Your task to perform on an android device: Empty the shopping cart on bestbuy.com. Image 0: 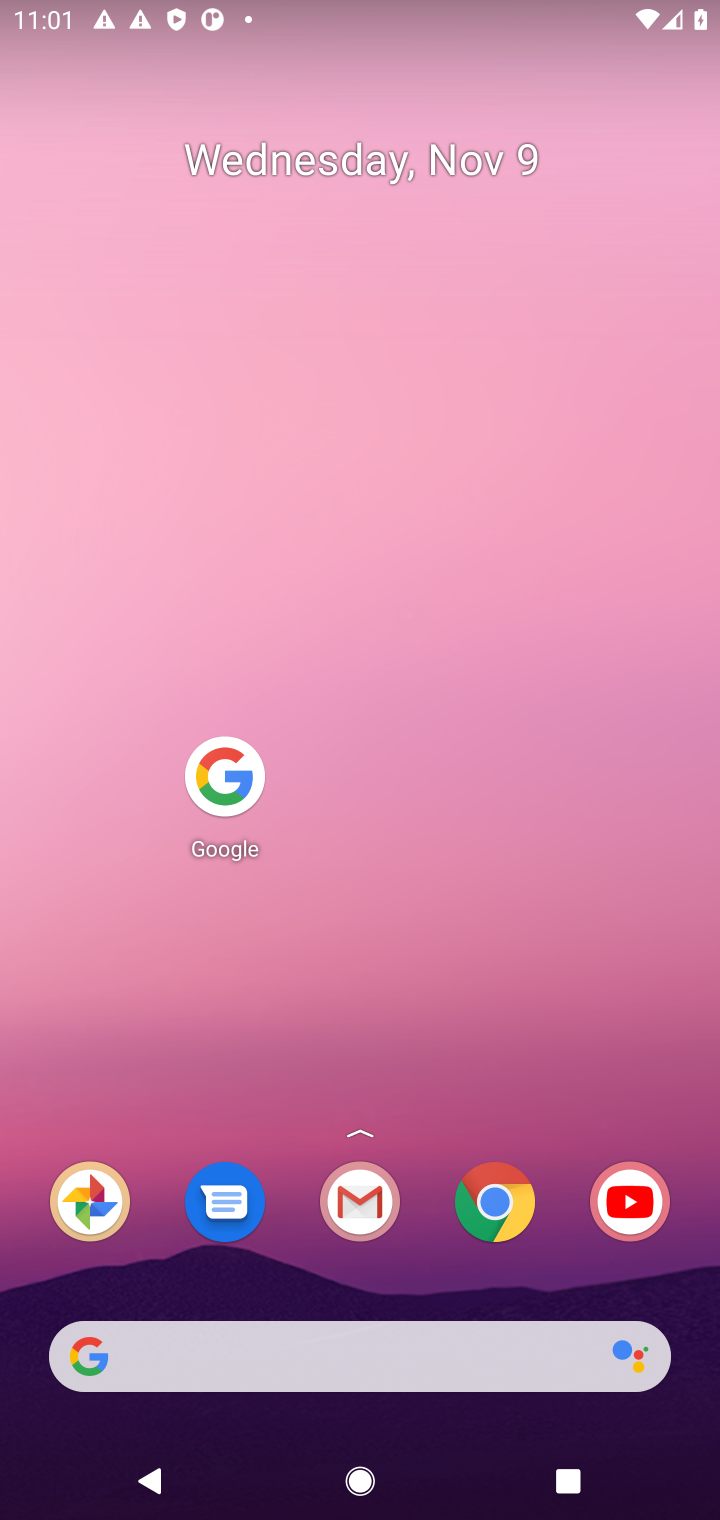
Step 0: click (231, 765)
Your task to perform on an android device: Empty the shopping cart on bestbuy.com. Image 1: 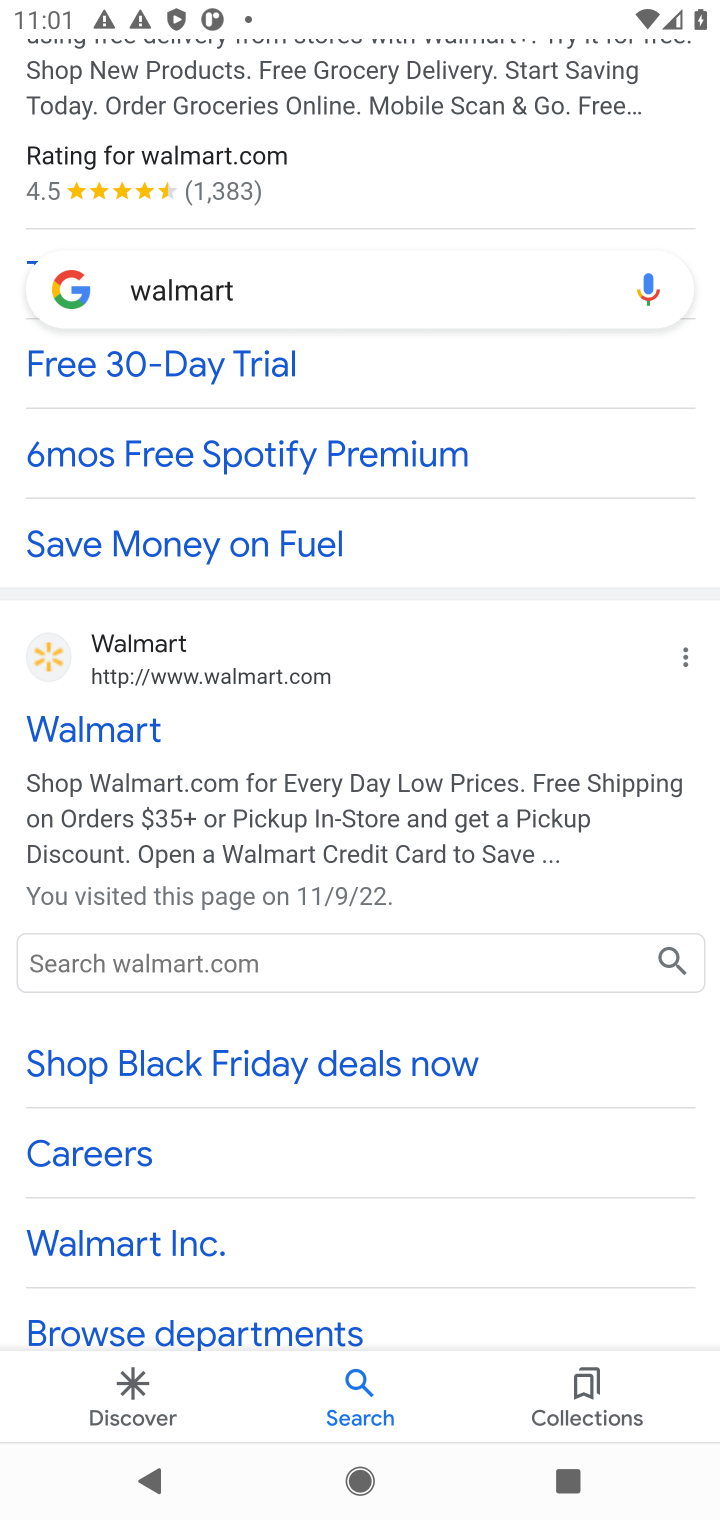
Step 1: drag from (440, 160) to (500, 1233)
Your task to perform on an android device: Empty the shopping cart on bestbuy.com. Image 2: 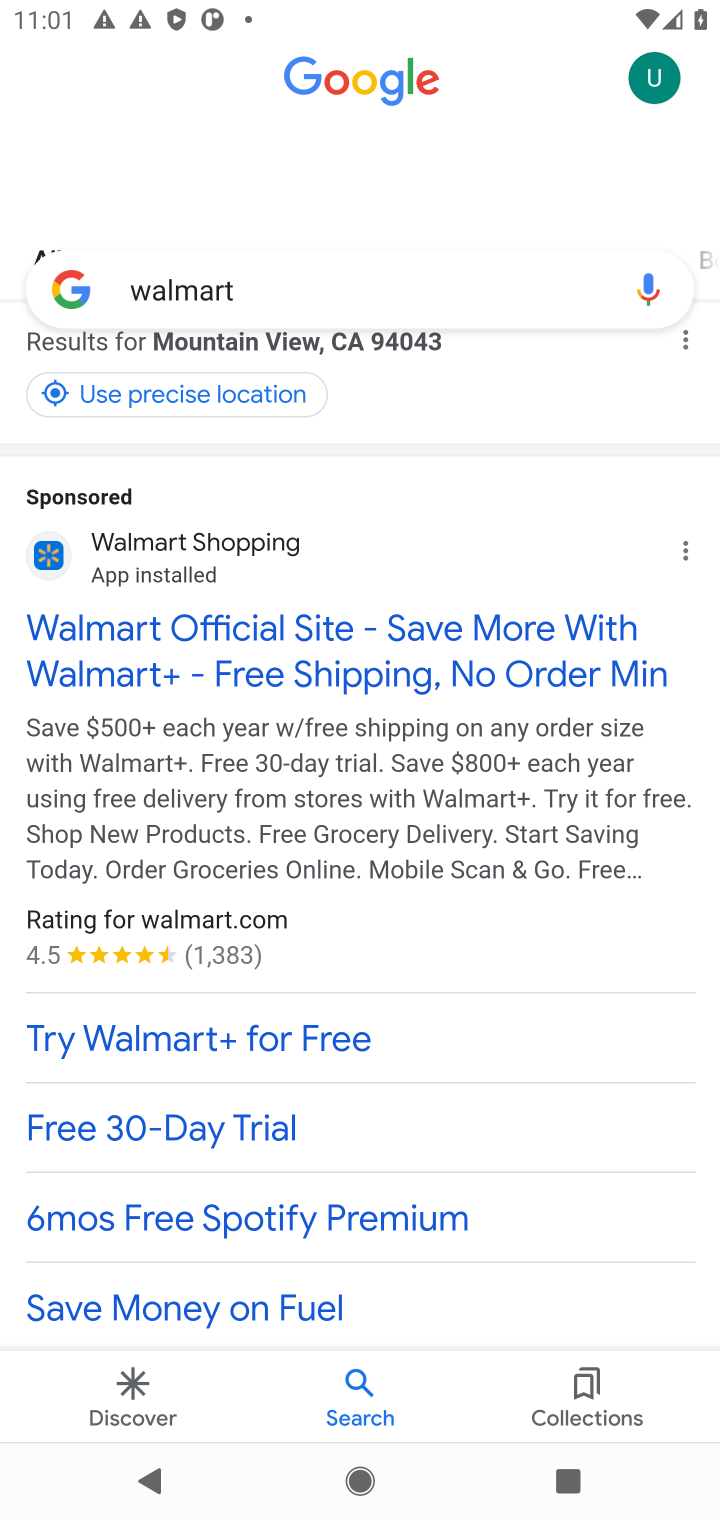
Step 2: click (336, 290)
Your task to perform on an android device: Empty the shopping cart on bestbuy.com. Image 3: 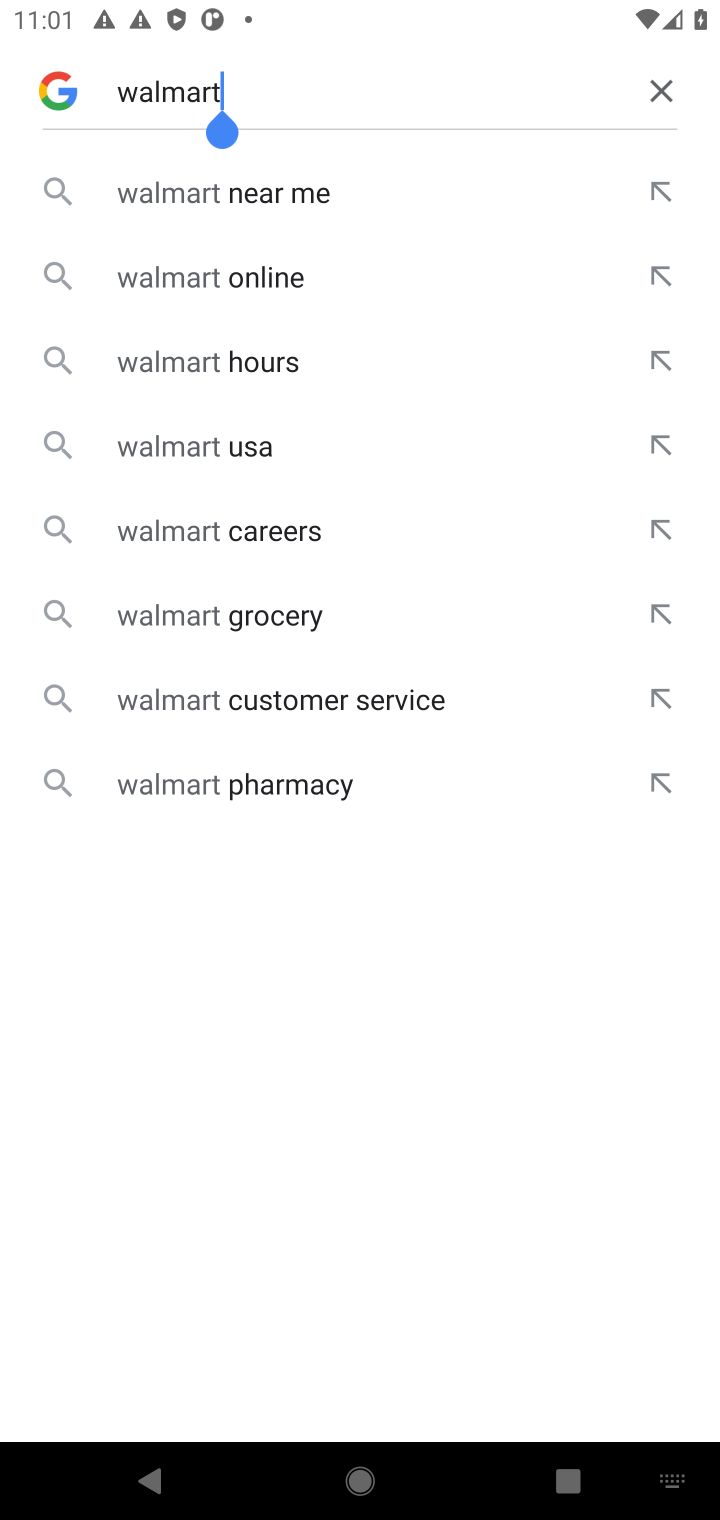
Step 3: click (665, 83)
Your task to perform on an android device: Empty the shopping cart on bestbuy.com. Image 4: 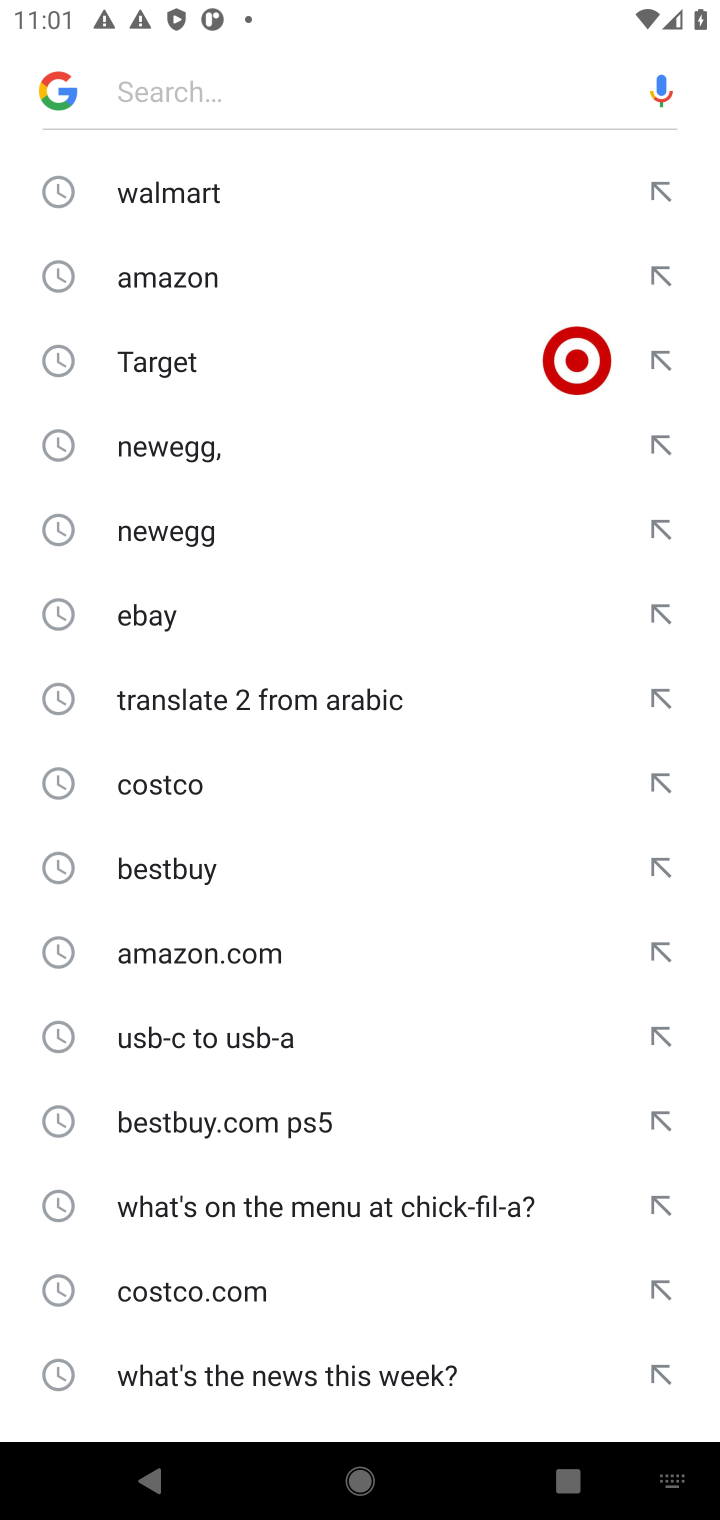
Step 4: click (161, 869)
Your task to perform on an android device: Empty the shopping cart on bestbuy.com. Image 5: 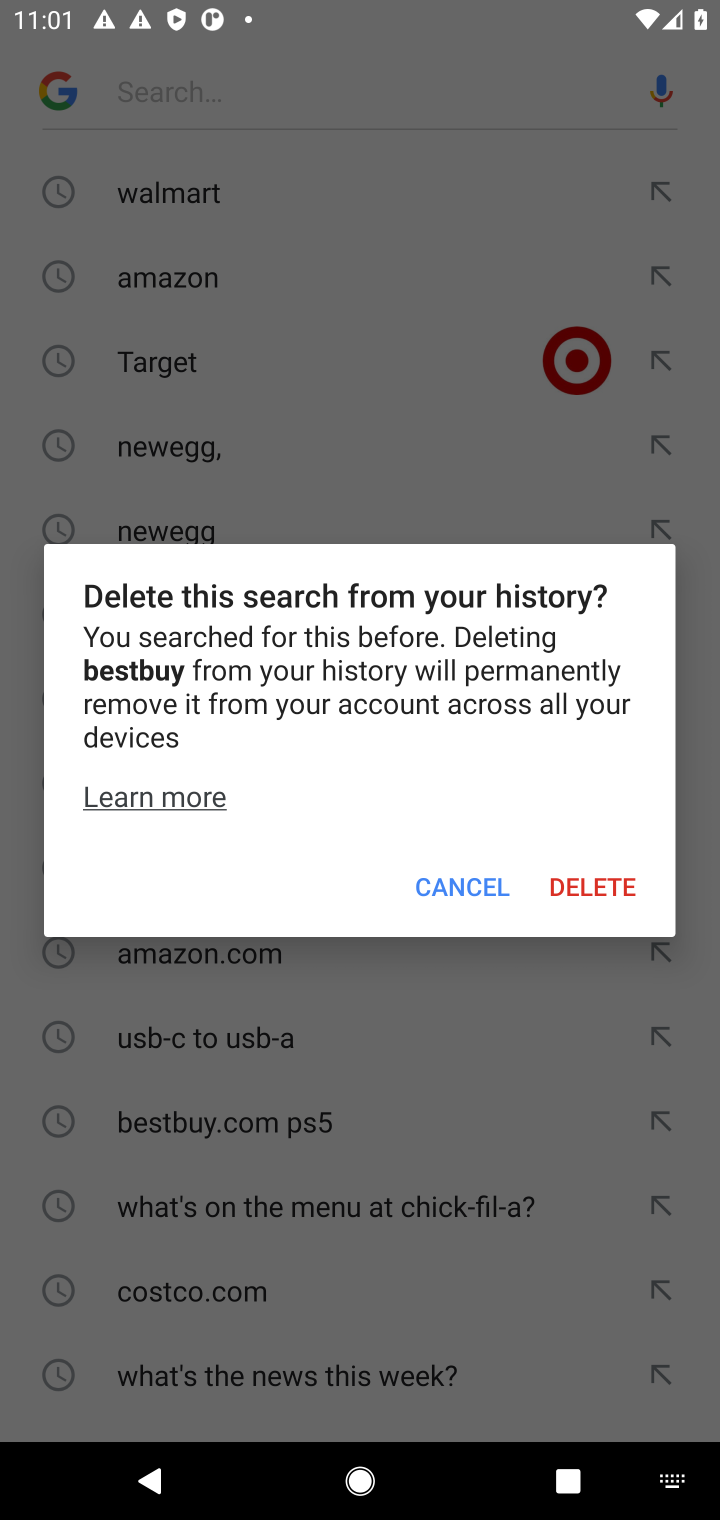
Step 5: click (501, 878)
Your task to perform on an android device: Empty the shopping cart on bestbuy.com. Image 6: 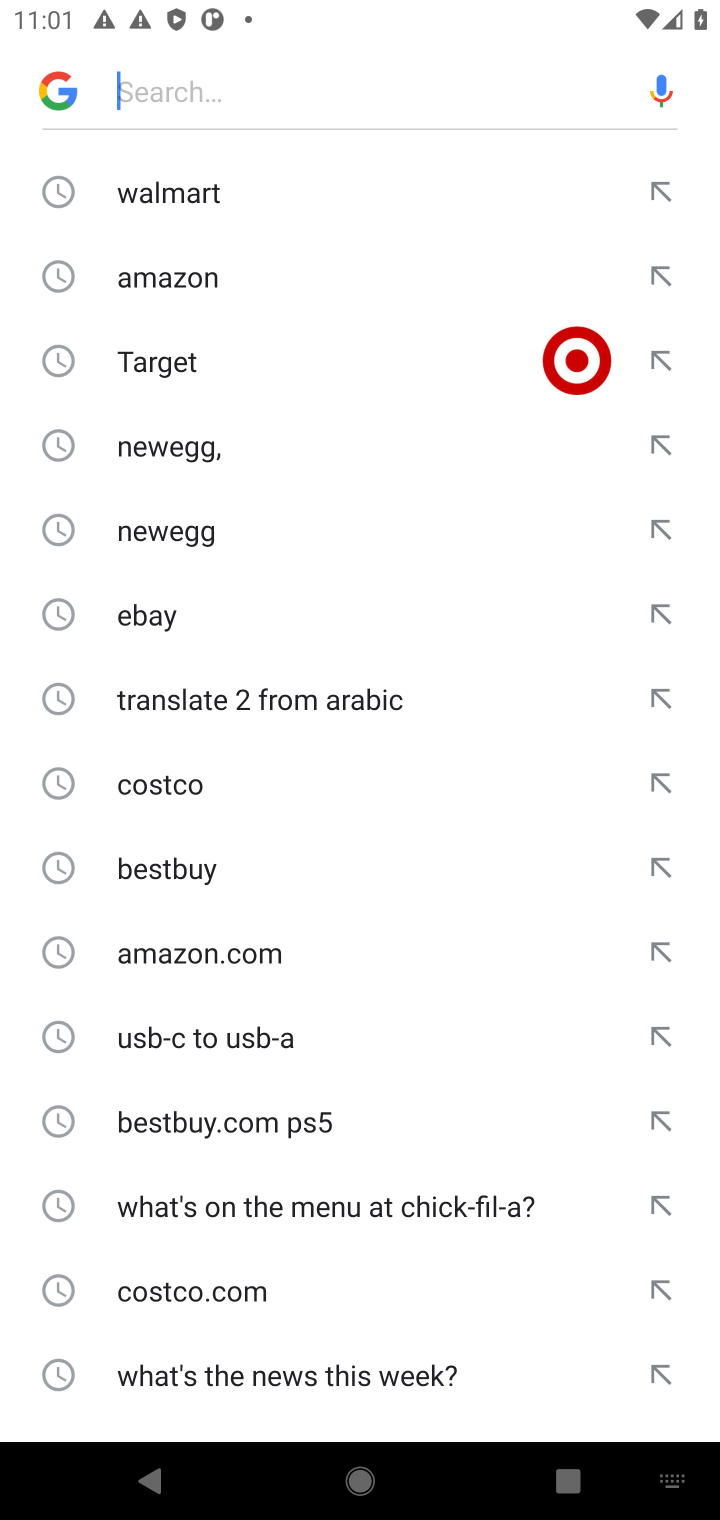
Step 6: click (130, 864)
Your task to perform on an android device: Empty the shopping cart on bestbuy.com. Image 7: 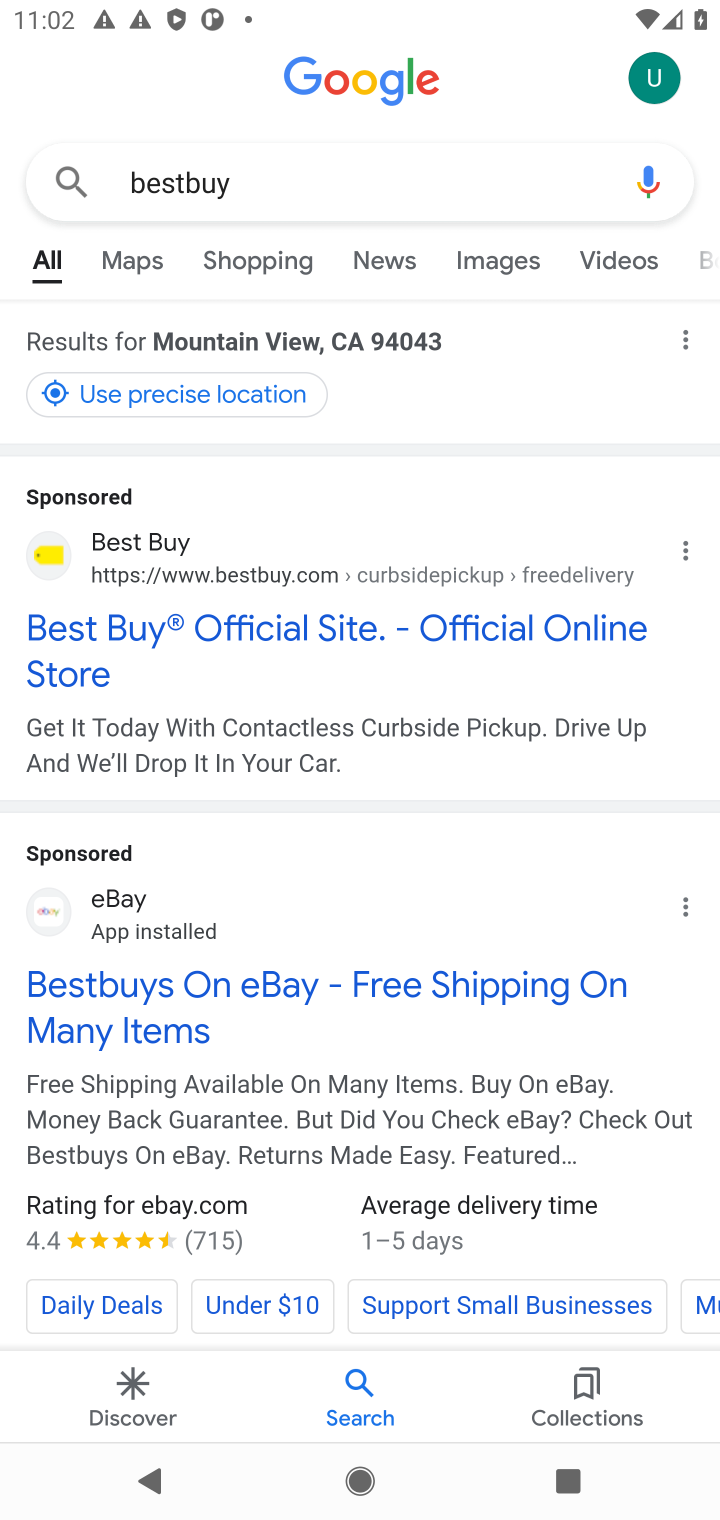
Step 7: click (226, 629)
Your task to perform on an android device: Empty the shopping cart on bestbuy.com. Image 8: 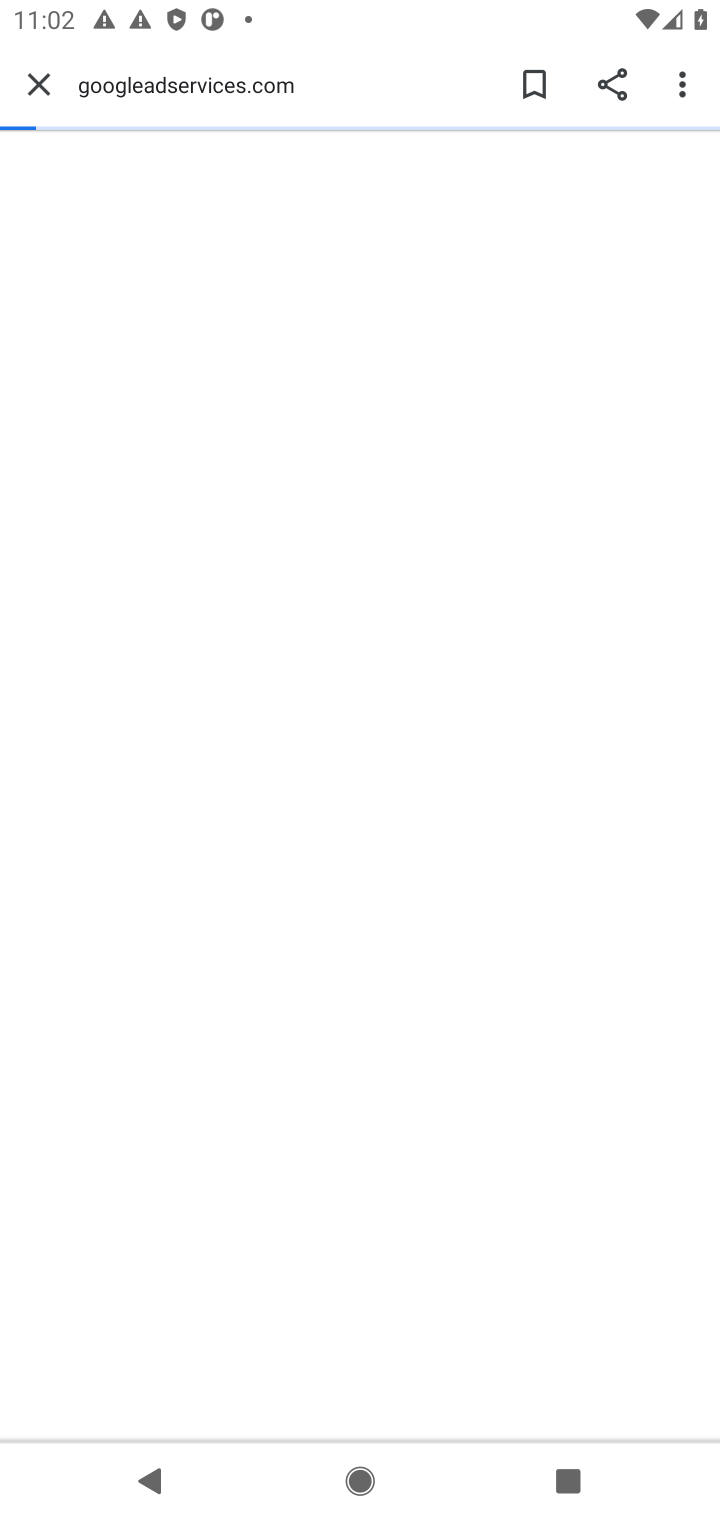
Step 8: press back button
Your task to perform on an android device: Empty the shopping cart on bestbuy.com. Image 9: 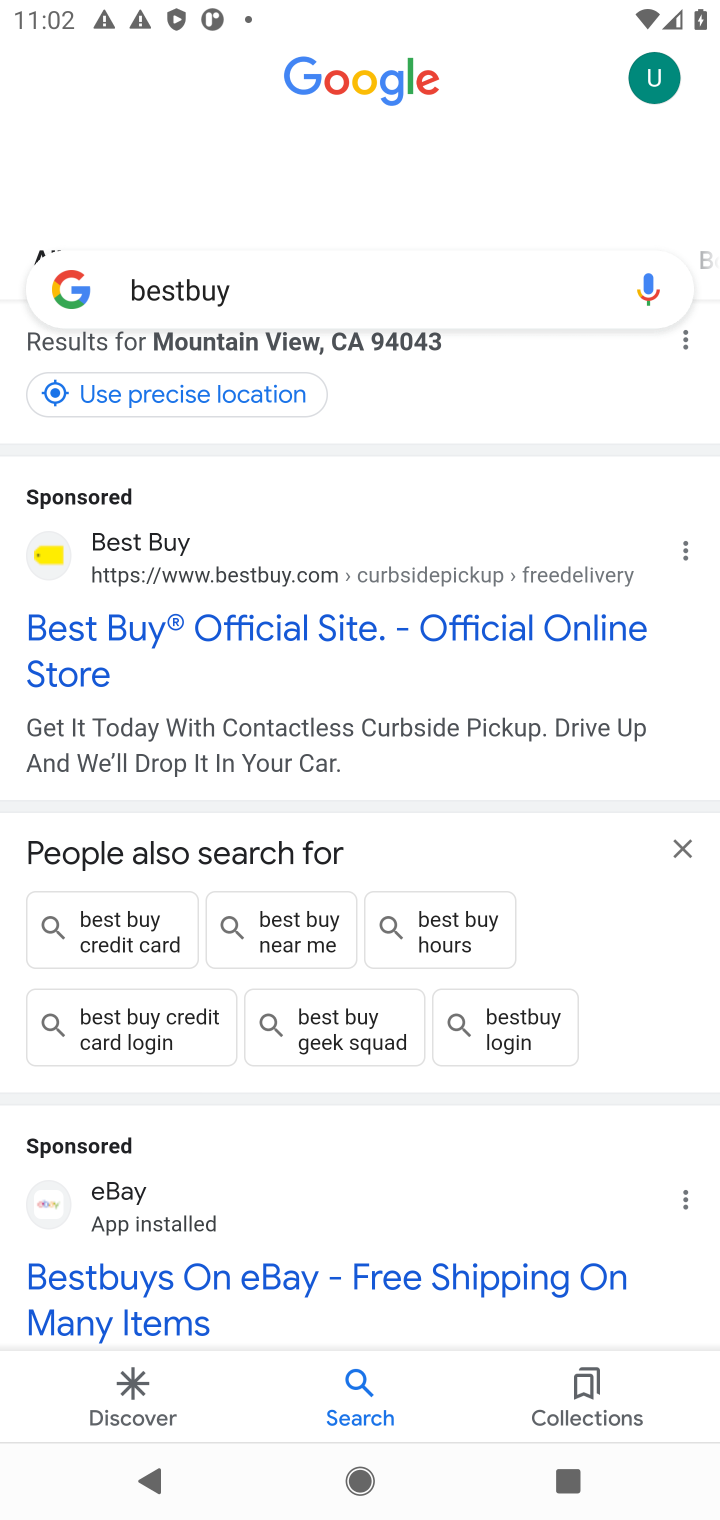
Step 9: click (265, 622)
Your task to perform on an android device: Empty the shopping cart on bestbuy.com. Image 10: 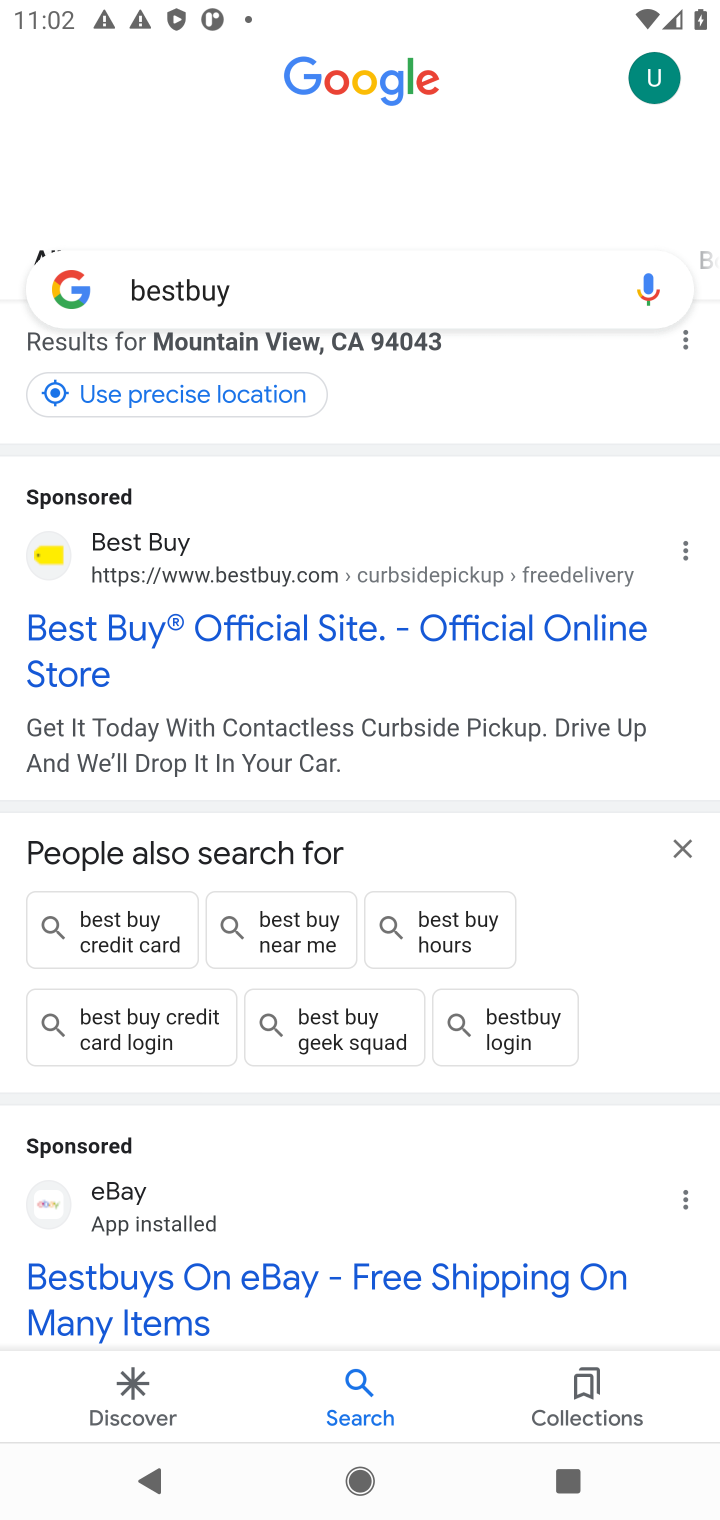
Step 10: click (259, 622)
Your task to perform on an android device: Empty the shopping cart on bestbuy.com. Image 11: 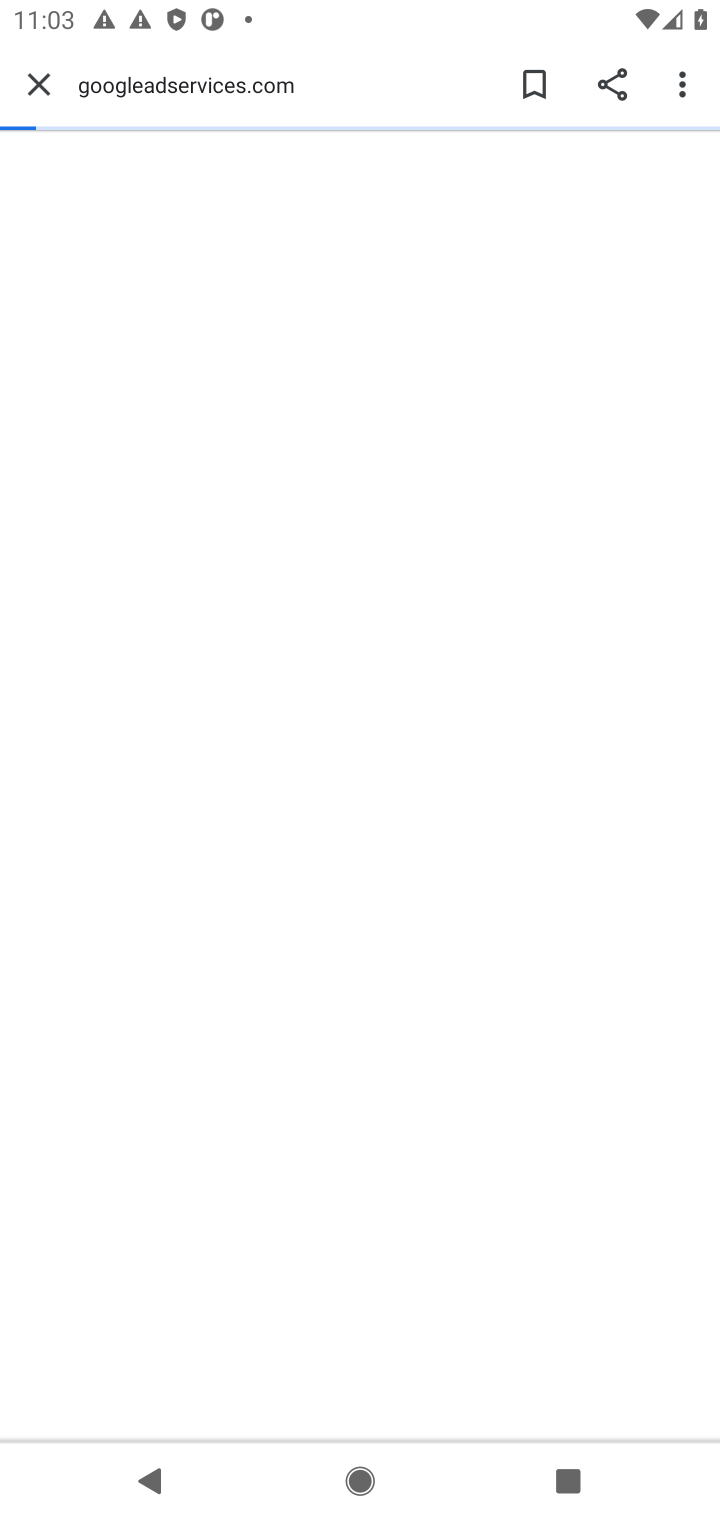
Step 11: drag from (332, 1159) to (466, 272)
Your task to perform on an android device: Empty the shopping cart on bestbuy.com. Image 12: 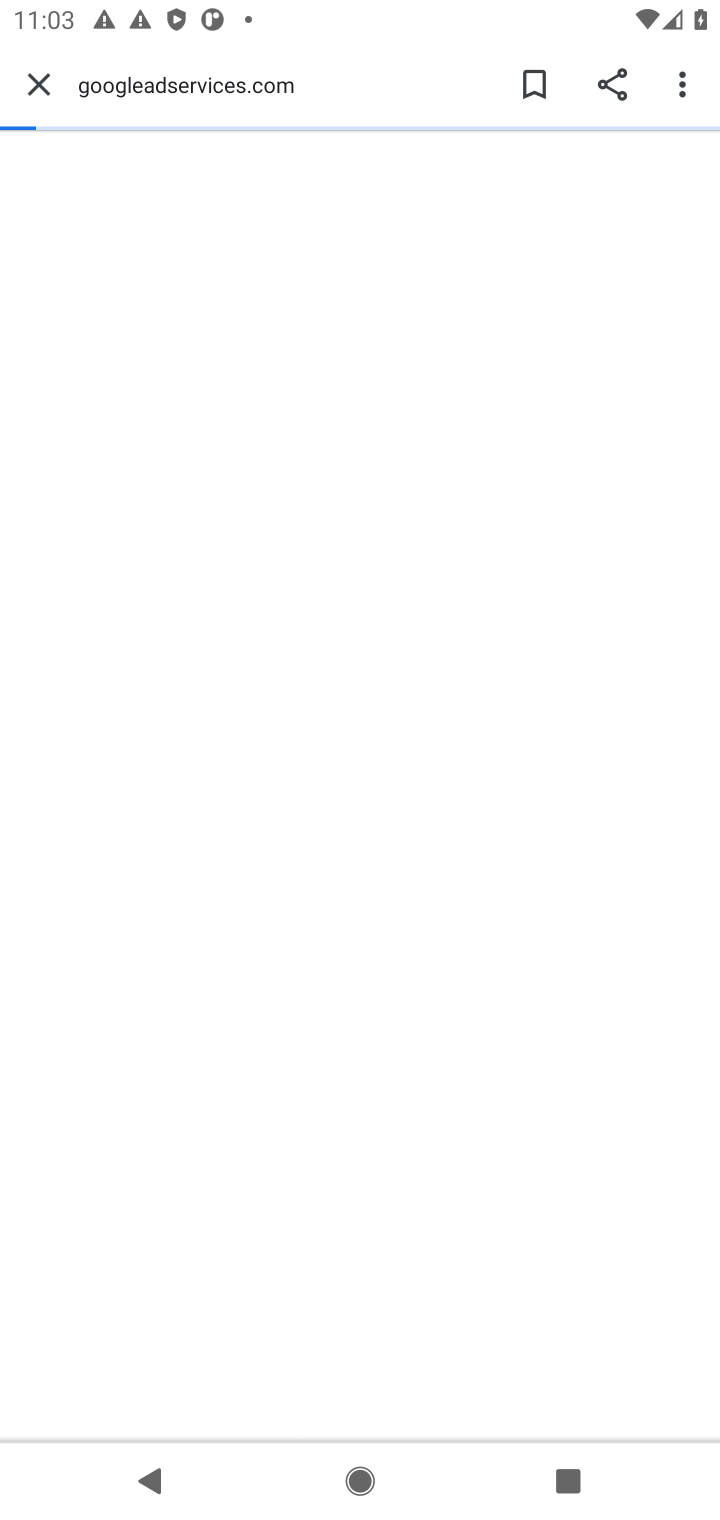
Step 12: press back button
Your task to perform on an android device: Empty the shopping cart on bestbuy.com. Image 13: 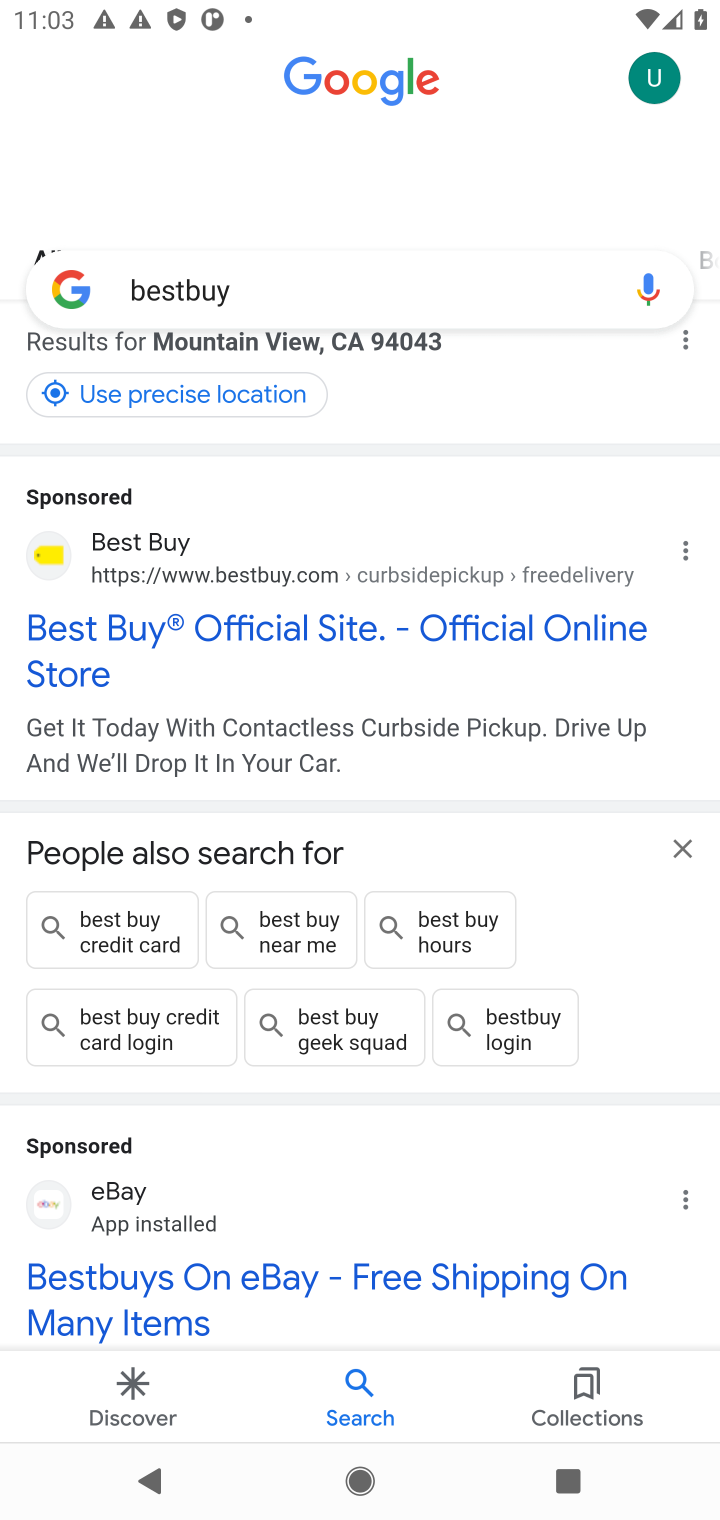
Step 13: drag from (212, 1045) to (332, 987)
Your task to perform on an android device: Empty the shopping cart on bestbuy.com. Image 14: 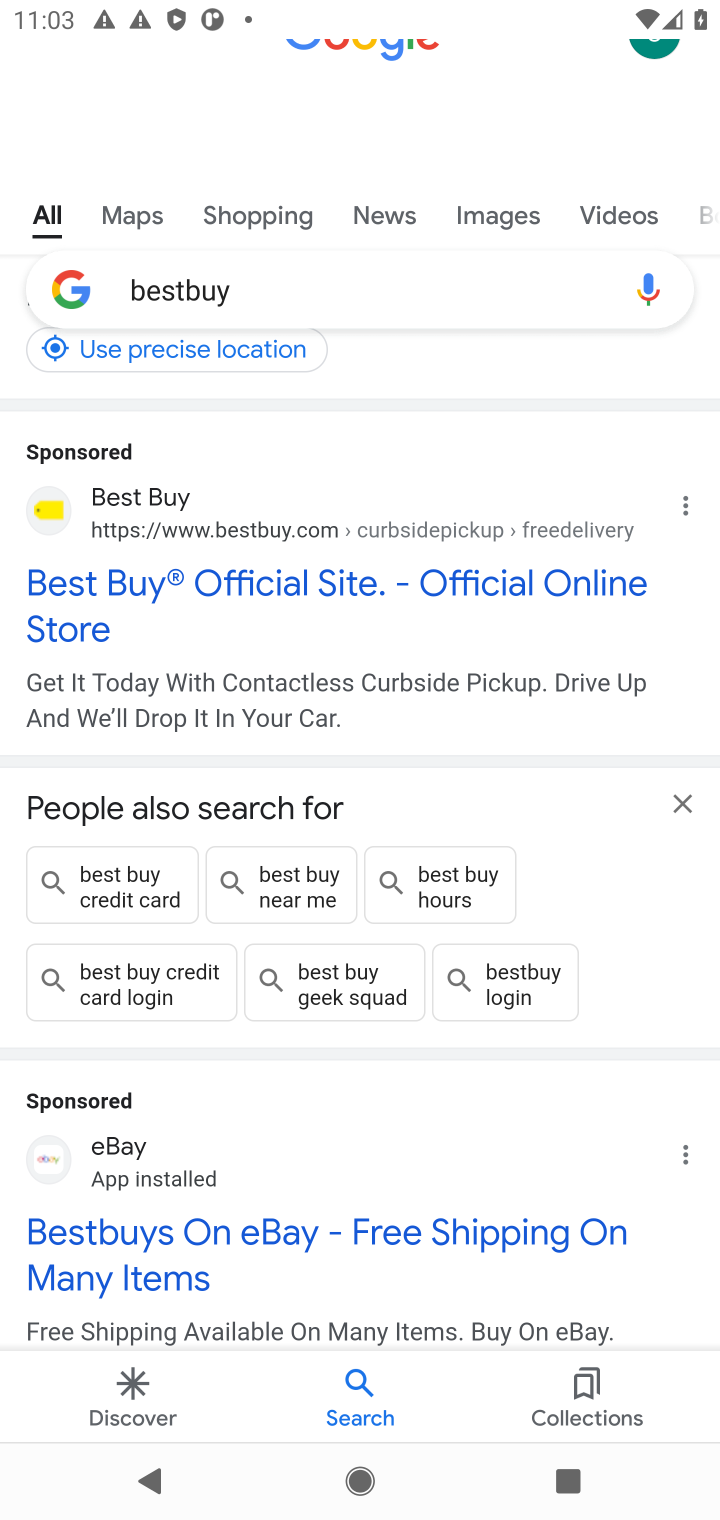
Step 14: click (333, 577)
Your task to perform on an android device: Empty the shopping cart on bestbuy.com. Image 15: 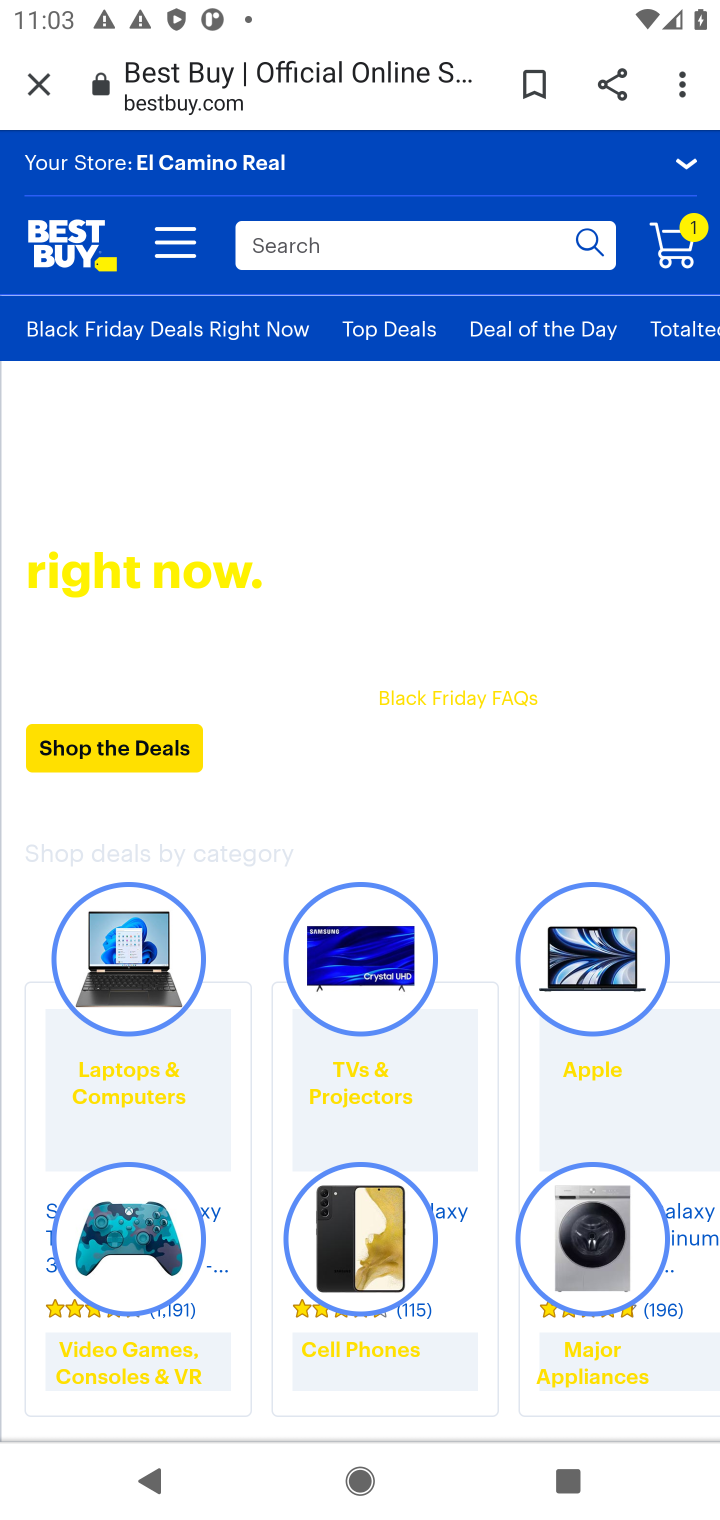
Step 15: click (672, 248)
Your task to perform on an android device: Empty the shopping cart on bestbuy.com. Image 16: 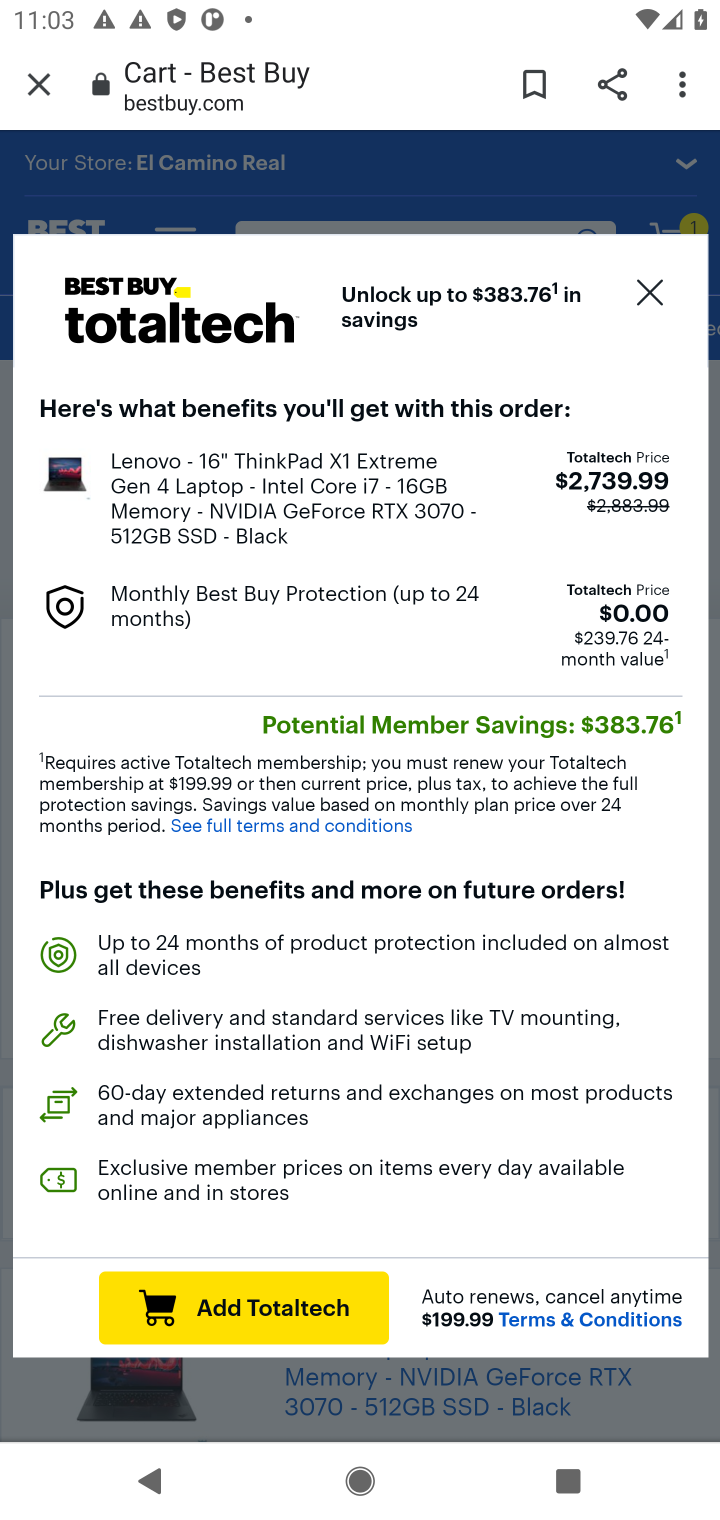
Step 16: click (643, 296)
Your task to perform on an android device: Empty the shopping cart on bestbuy.com. Image 17: 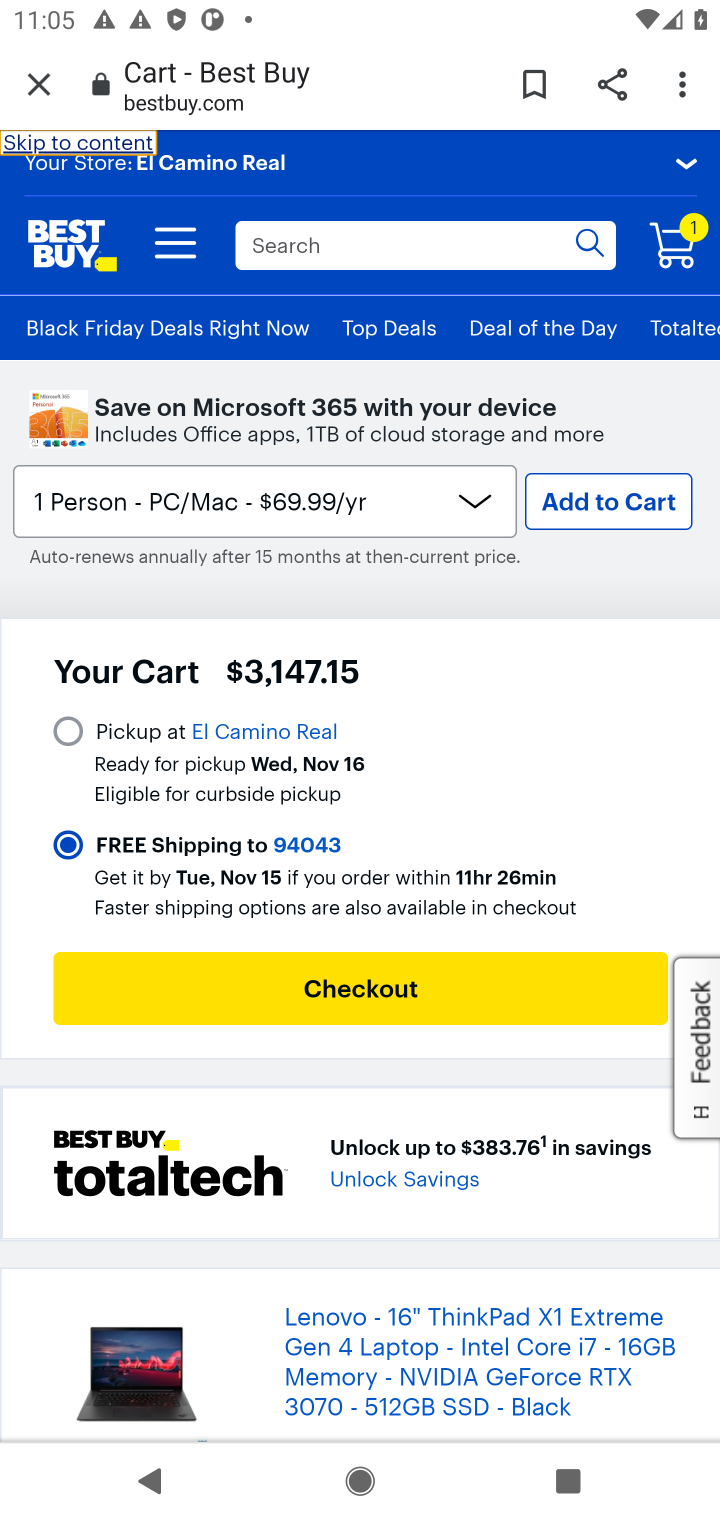
Step 17: click (677, 247)
Your task to perform on an android device: Empty the shopping cart on bestbuy.com. Image 18: 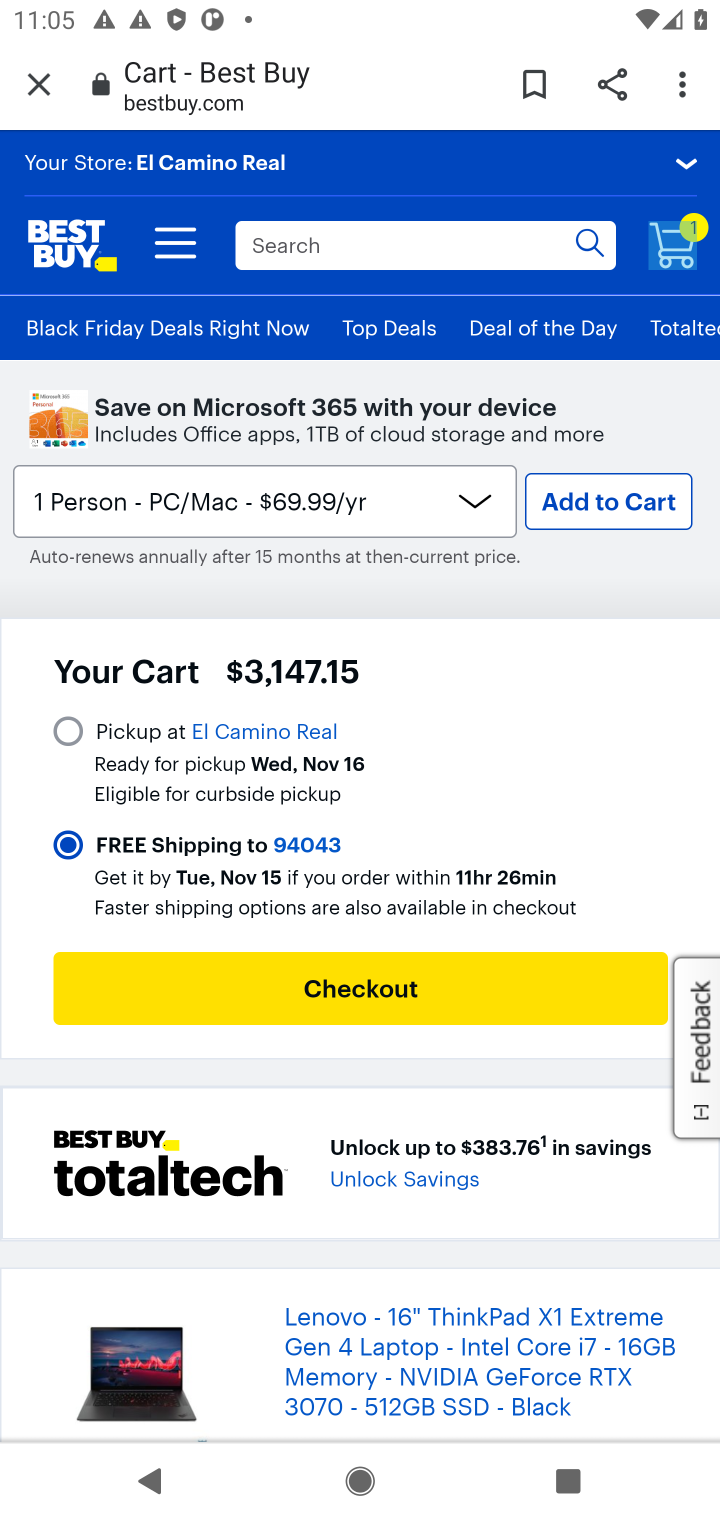
Step 18: drag from (370, 1290) to (615, 191)
Your task to perform on an android device: Empty the shopping cart on bestbuy.com. Image 19: 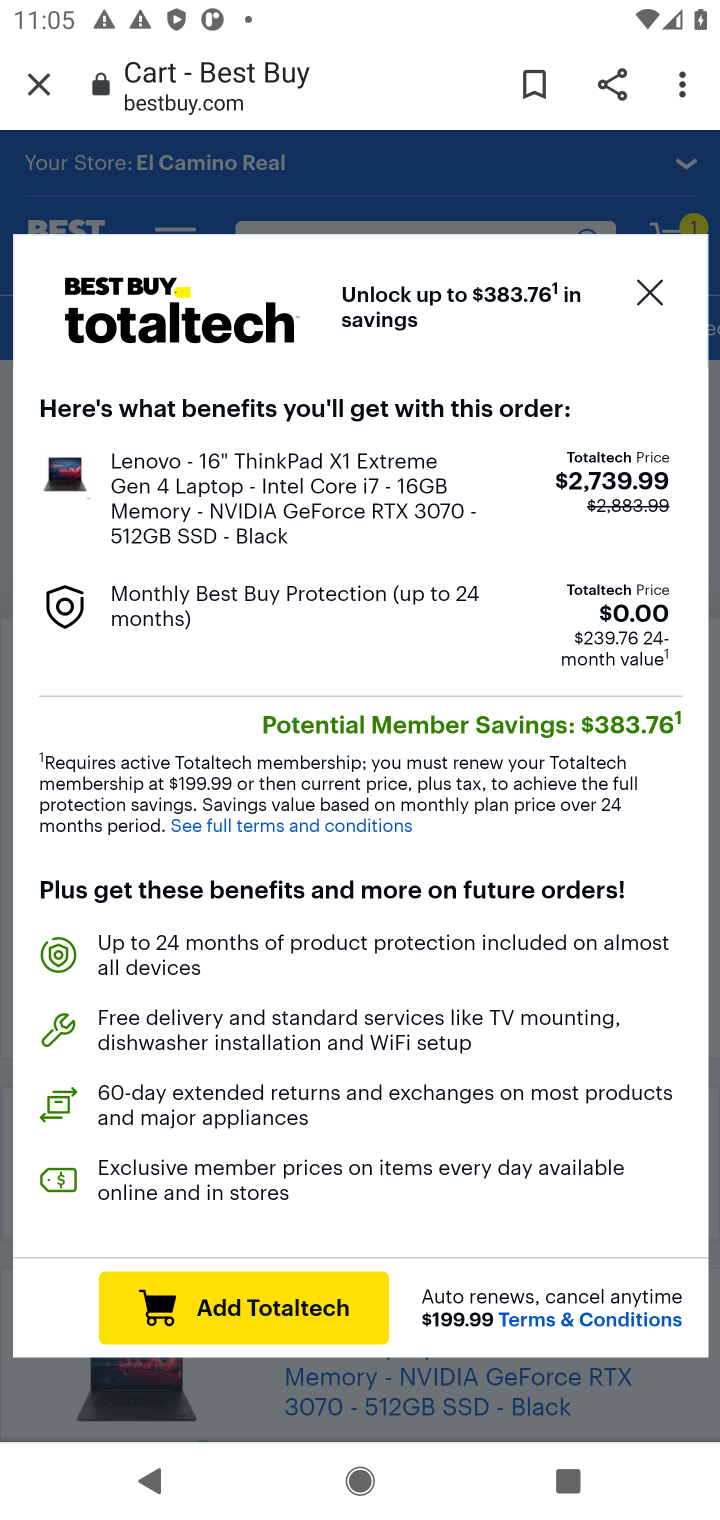
Step 19: click (640, 283)
Your task to perform on an android device: Empty the shopping cart on bestbuy.com. Image 20: 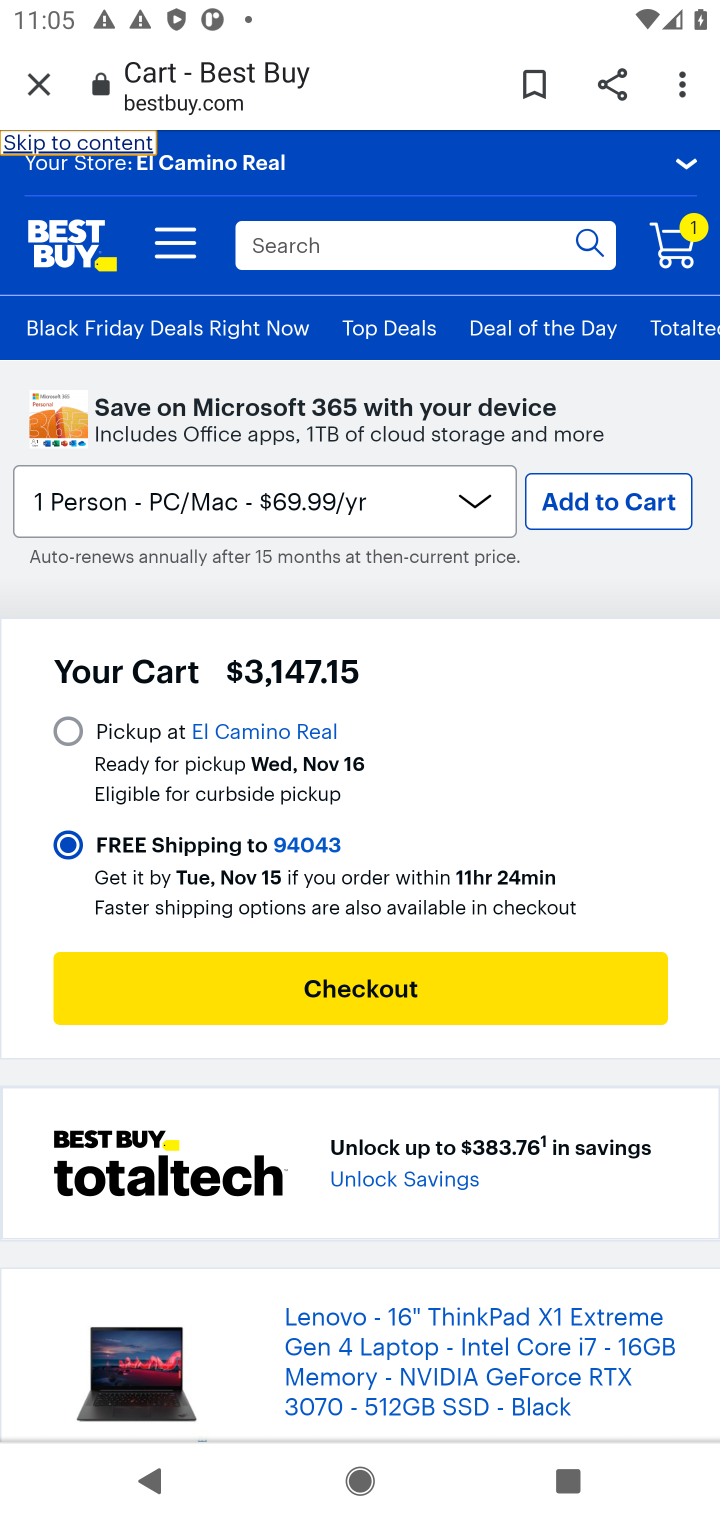
Step 20: drag from (243, 1298) to (663, 187)
Your task to perform on an android device: Empty the shopping cart on bestbuy.com. Image 21: 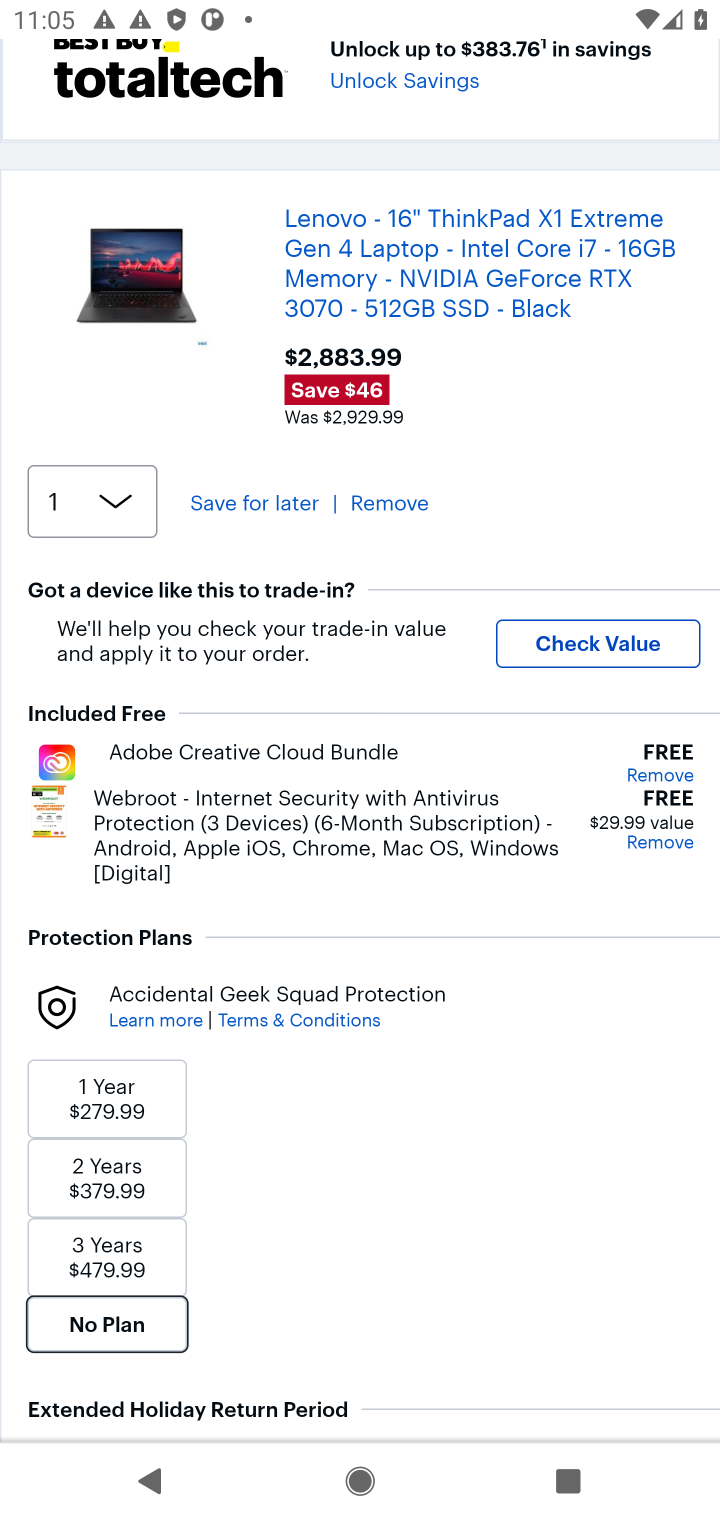
Step 21: click (394, 500)
Your task to perform on an android device: Empty the shopping cart on bestbuy.com. Image 22: 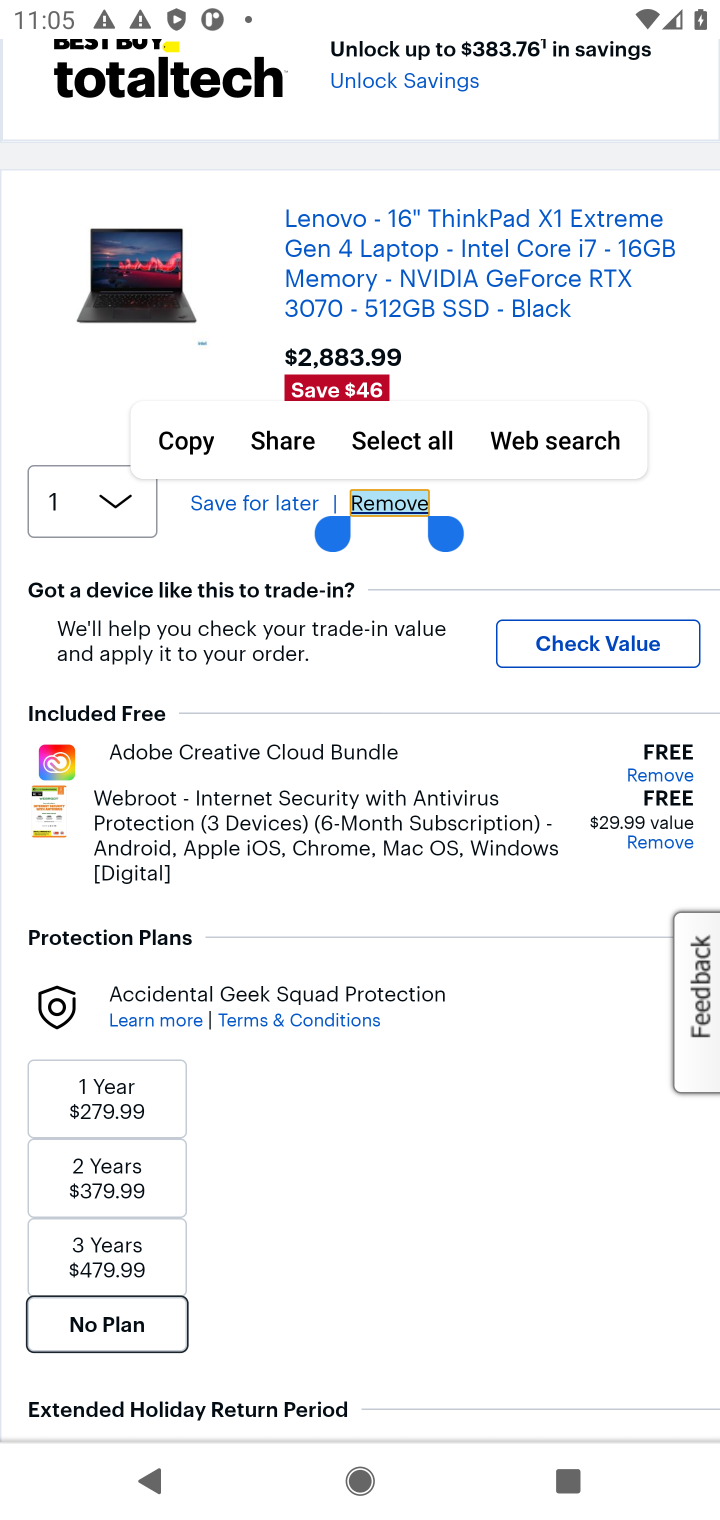
Step 22: click (396, 502)
Your task to perform on an android device: Empty the shopping cart on bestbuy.com. Image 23: 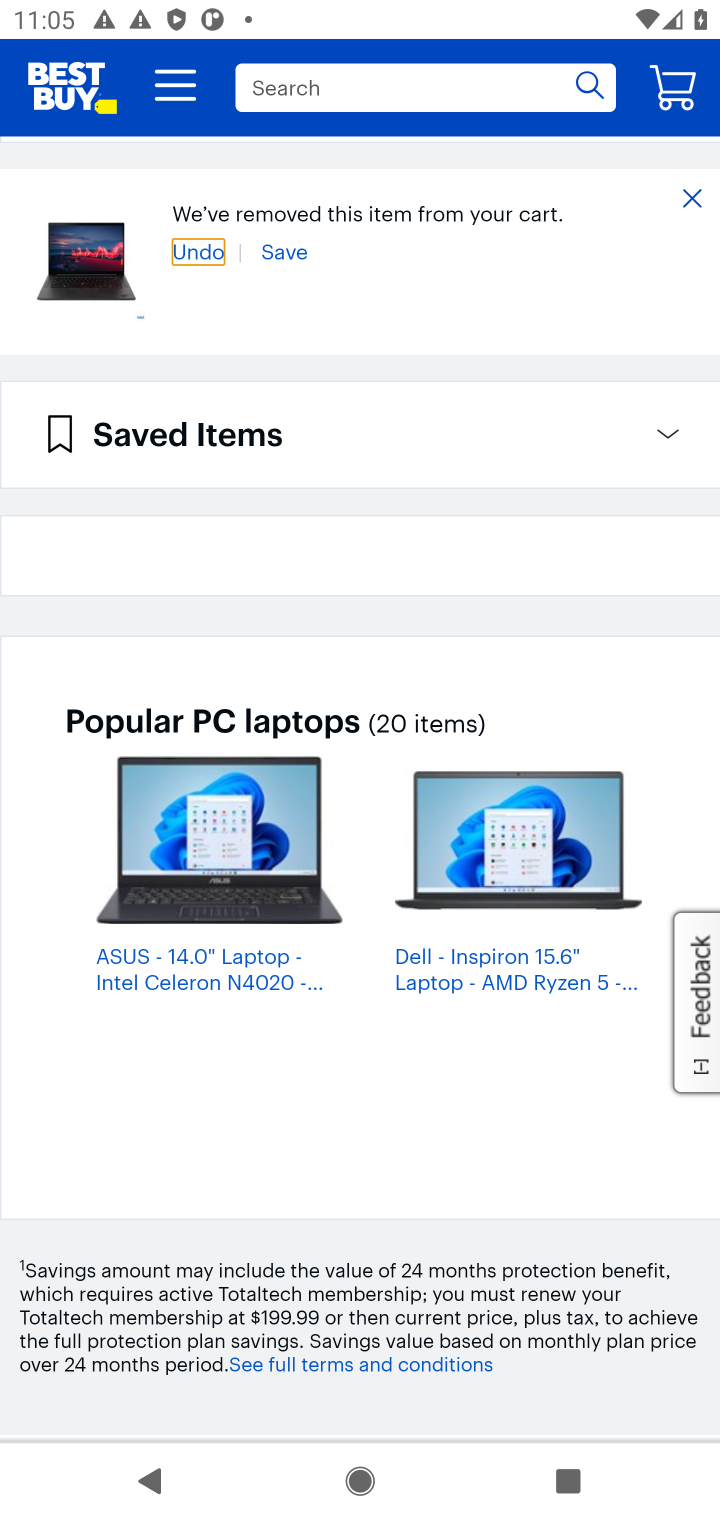
Step 23: task complete